Your task to perform on an android device: What's the weather? Image 0: 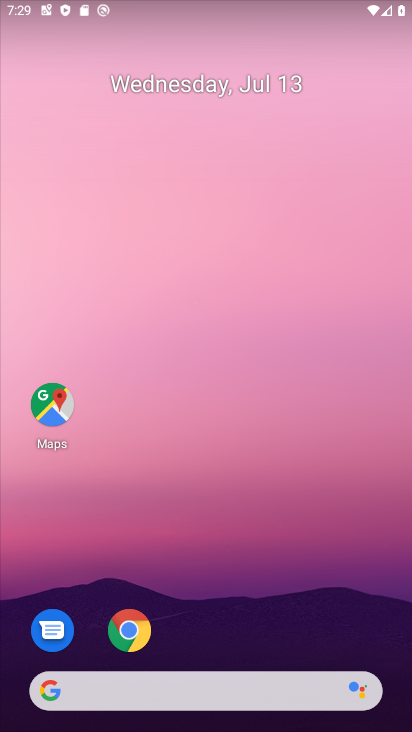
Step 0: click (253, 692)
Your task to perform on an android device: What's the weather? Image 1: 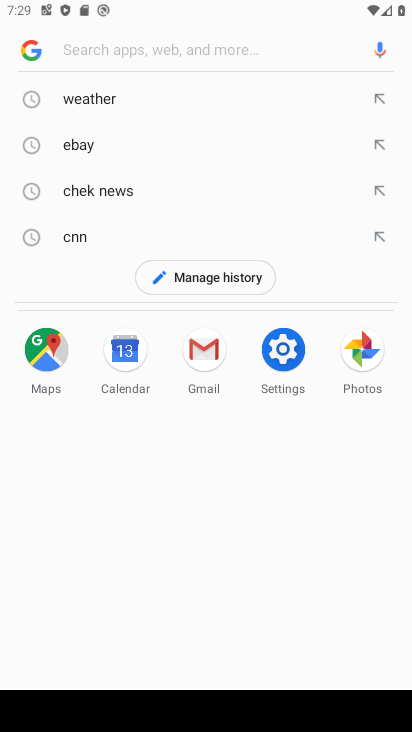
Step 1: click (109, 94)
Your task to perform on an android device: What's the weather? Image 2: 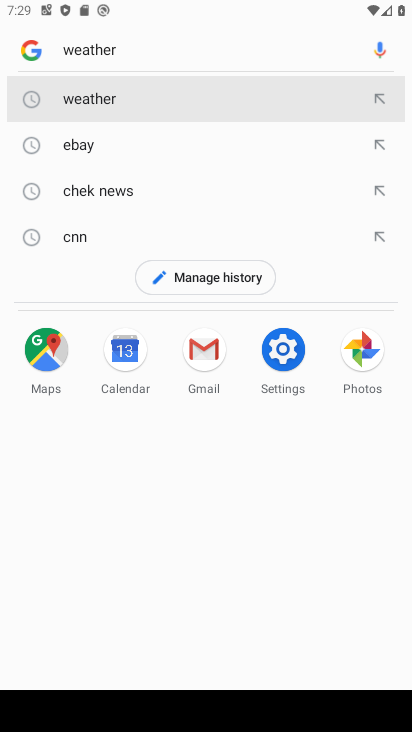
Step 2: click (109, 94)
Your task to perform on an android device: What's the weather? Image 3: 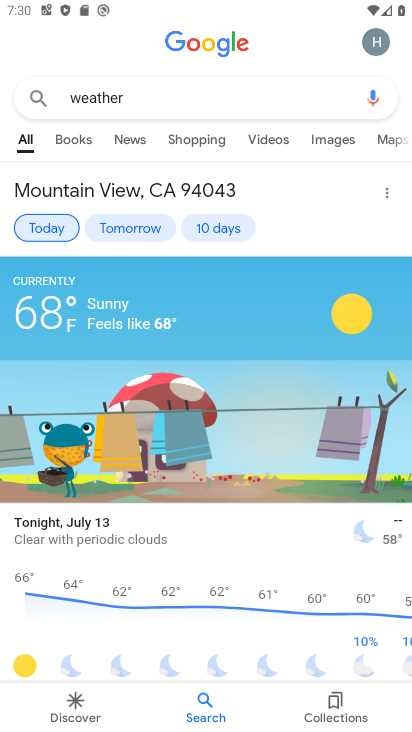
Step 3: task complete